Your task to perform on an android device: Search for the best rated tool bag on Lowe's. Image 0: 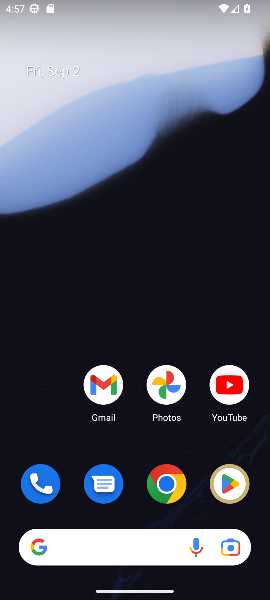
Step 0: click (166, 485)
Your task to perform on an android device: Search for the best rated tool bag on Lowe's. Image 1: 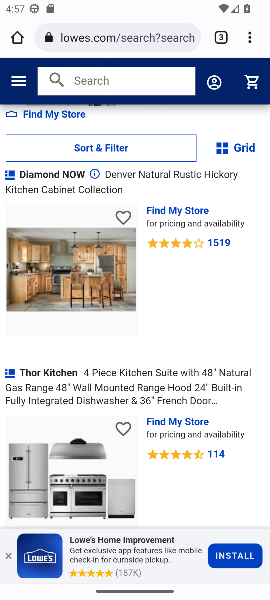
Step 1: click (150, 39)
Your task to perform on an android device: Search for the best rated tool bag on Lowe's. Image 2: 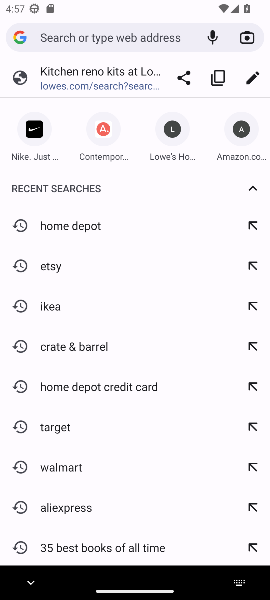
Step 2: type "Lowe's"
Your task to perform on an android device: Search for the best rated tool bag on Lowe's. Image 3: 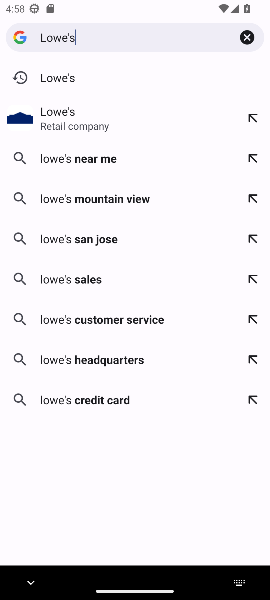
Step 3: click (58, 76)
Your task to perform on an android device: Search for the best rated tool bag on Lowe's. Image 4: 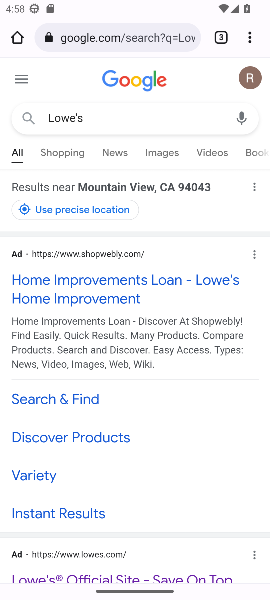
Step 4: drag from (133, 409) to (141, 243)
Your task to perform on an android device: Search for the best rated tool bag on Lowe's. Image 5: 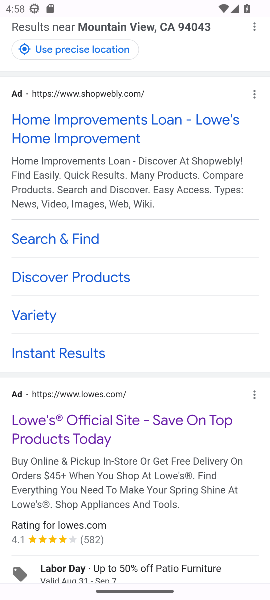
Step 5: click (105, 421)
Your task to perform on an android device: Search for the best rated tool bag on Lowe's. Image 6: 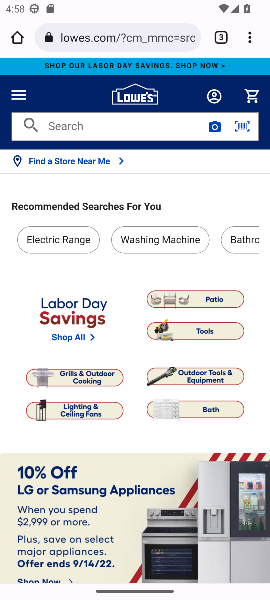
Step 6: click (114, 136)
Your task to perform on an android device: Search for the best rated tool bag on Lowe's. Image 7: 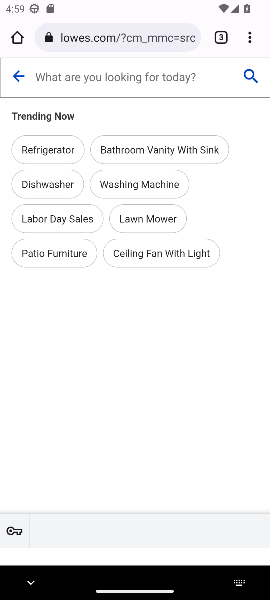
Step 7: type "tool bag "
Your task to perform on an android device: Search for the best rated tool bag on Lowe's. Image 8: 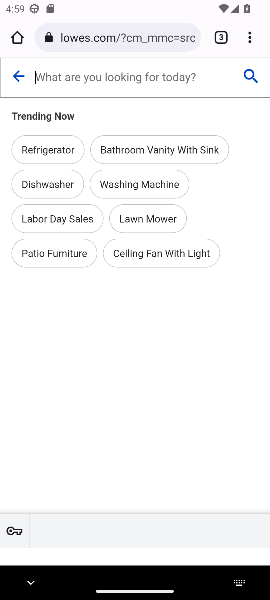
Step 8: press enter
Your task to perform on an android device: Search for the best rated tool bag on Lowe's. Image 9: 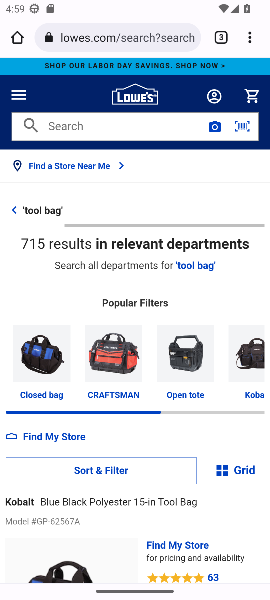
Step 9: task complete